Your task to perform on an android device: What's the weather going to be tomorrow? Image 0: 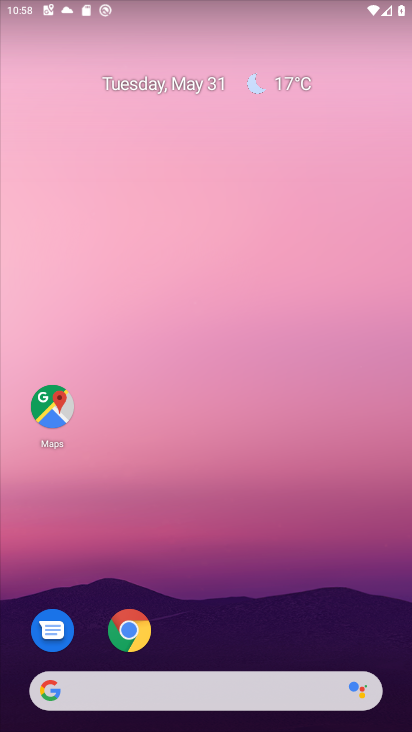
Step 0: click (302, 80)
Your task to perform on an android device: What's the weather going to be tomorrow? Image 1: 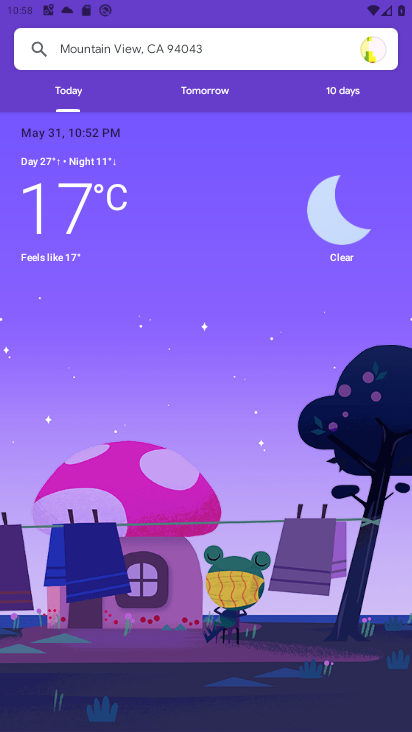
Step 1: click (194, 101)
Your task to perform on an android device: What's the weather going to be tomorrow? Image 2: 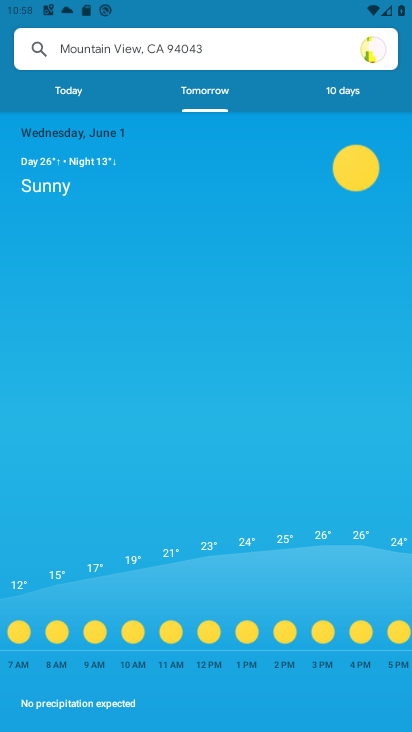
Step 2: task complete